Your task to perform on an android device: turn on translation in the chrome app Image 0: 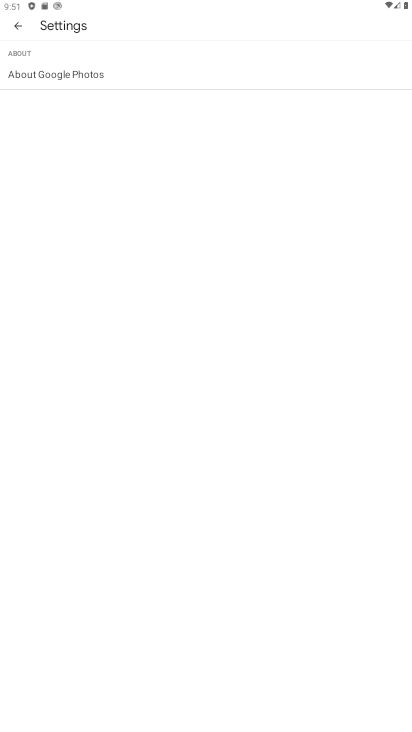
Step 0: press home button
Your task to perform on an android device: turn on translation in the chrome app Image 1: 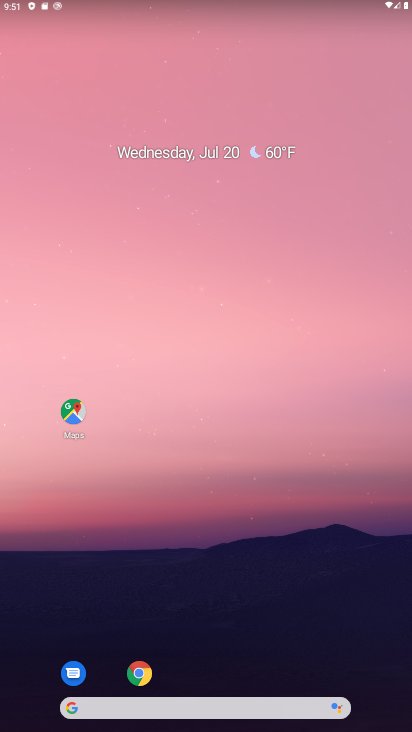
Step 1: click (146, 671)
Your task to perform on an android device: turn on translation in the chrome app Image 2: 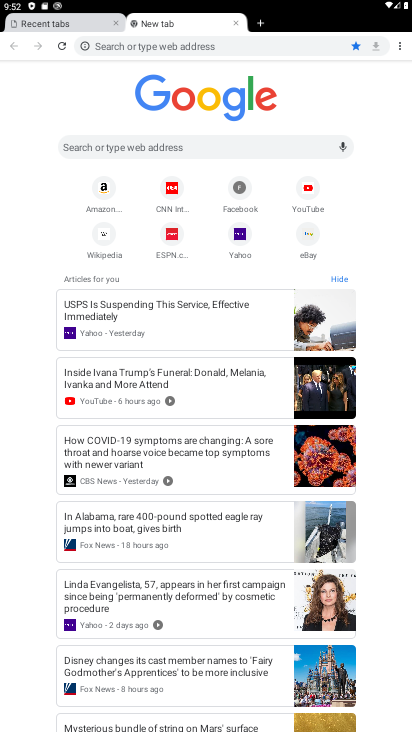
Step 2: click (402, 42)
Your task to perform on an android device: turn on translation in the chrome app Image 3: 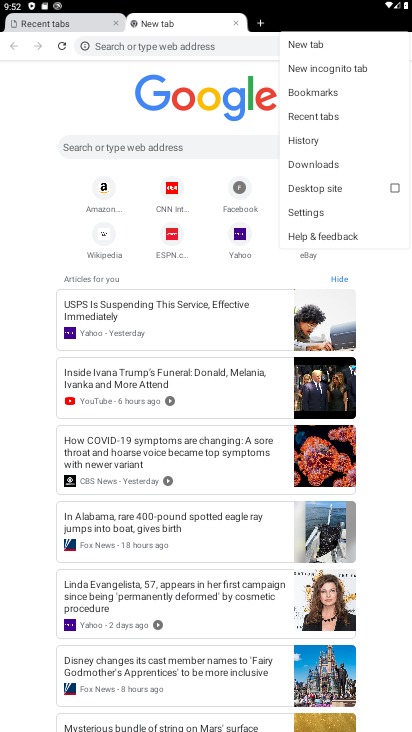
Step 3: click (315, 210)
Your task to perform on an android device: turn on translation in the chrome app Image 4: 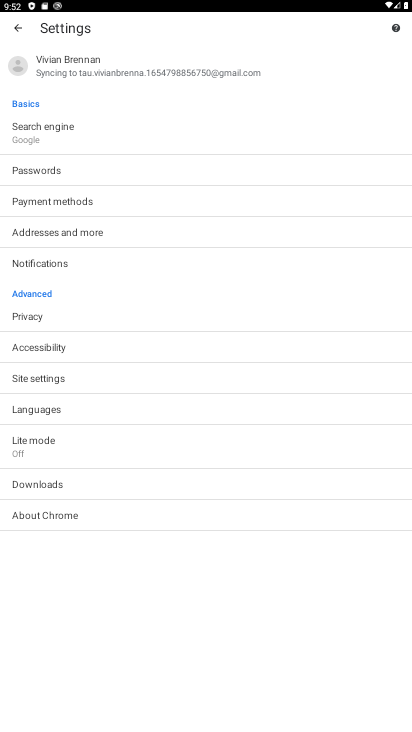
Step 4: click (58, 414)
Your task to perform on an android device: turn on translation in the chrome app Image 5: 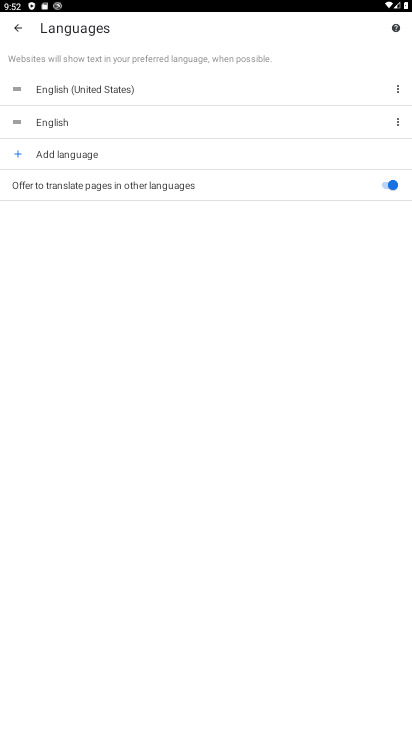
Step 5: task complete